Your task to perform on an android device: Show me popular videos on Youtube Image 0: 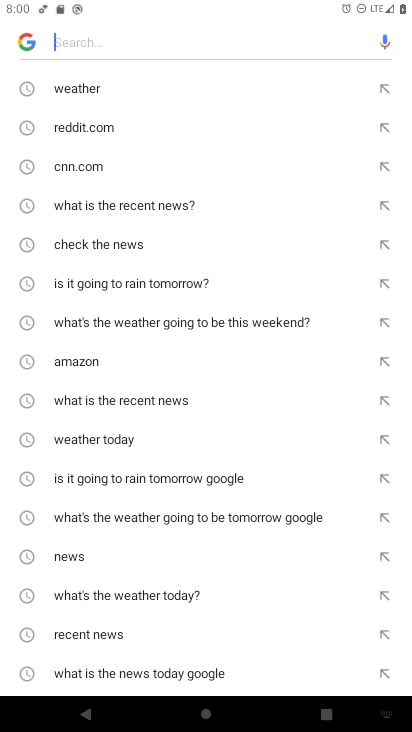
Step 0: press back button
Your task to perform on an android device: Show me popular videos on Youtube Image 1: 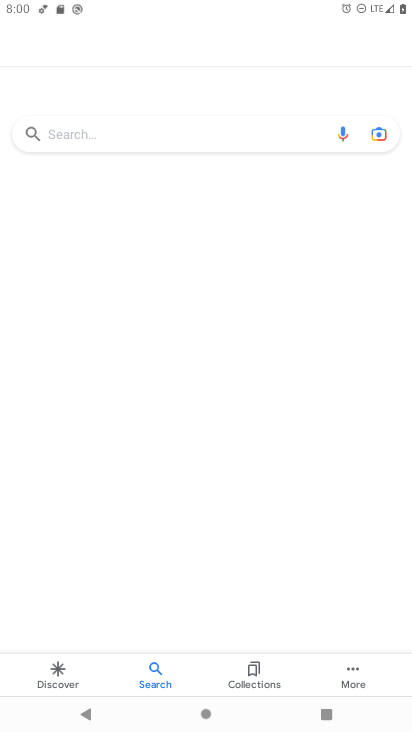
Step 1: press back button
Your task to perform on an android device: Show me popular videos on Youtube Image 2: 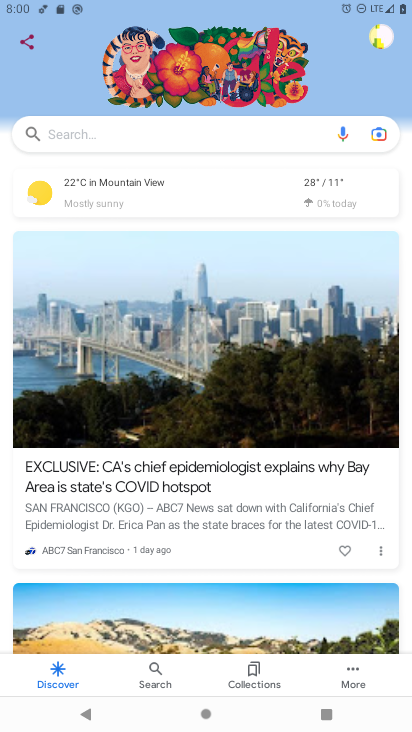
Step 2: press back button
Your task to perform on an android device: Show me popular videos on Youtube Image 3: 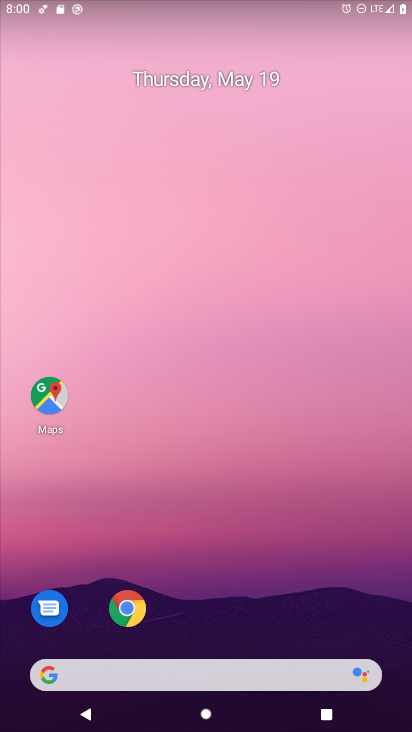
Step 3: click (401, 663)
Your task to perform on an android device: Show me popular videos on Youtube Image 4: 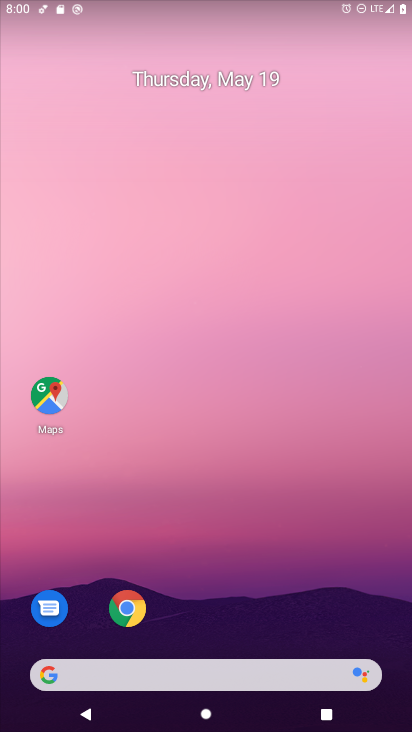
Step 4: drag from (394, 663) to (365, 135)
Your task to perform on an android device: Show me popular videos on Youtube Image 5: 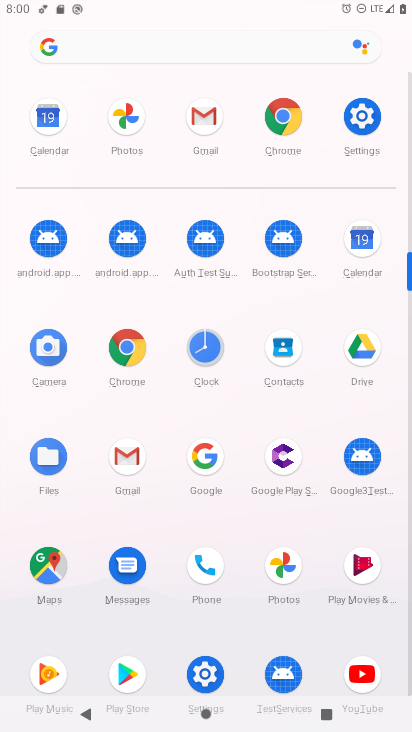
Step 5: click (355, 668)
Your task to perform on an android device: Show me popular videos on Youtube Image 6: 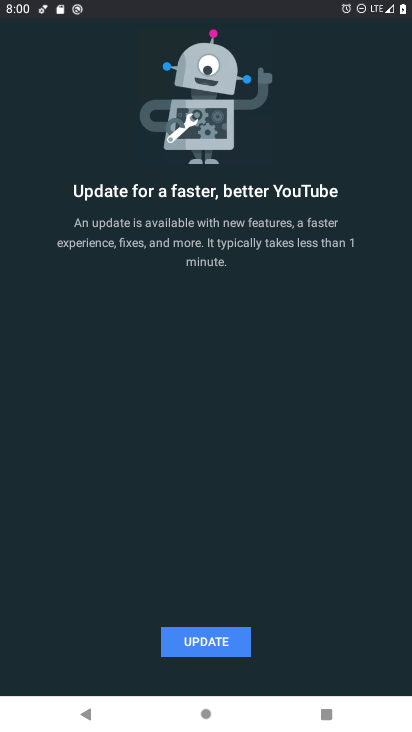
Step 6: click (233, 633)
Your task to perform on an android device: Show me popular videos on Youtube Image 7: 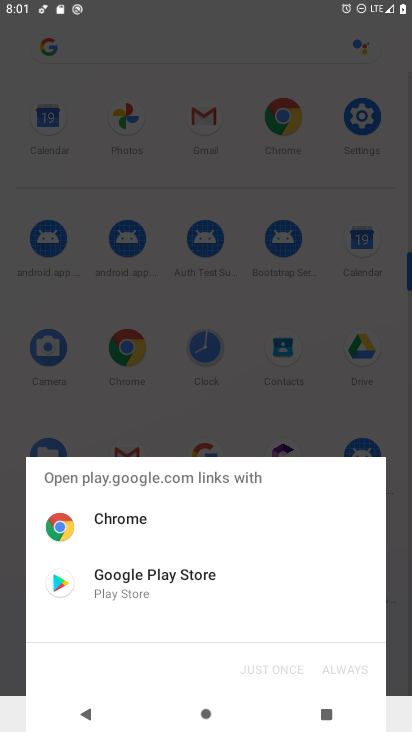
Step 7: click (136, 581)
Your task to perform on an android device: Show me popular videos on Youtube Image 8: 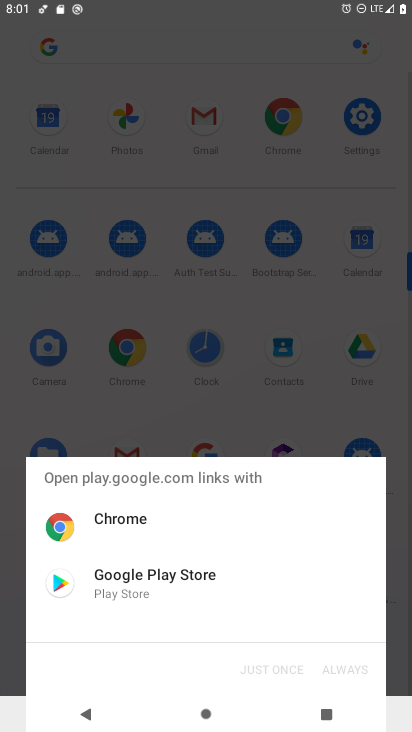
Step 8: click (123, 576)
Your task to perform on an android device: Show me popular videos on Youtube Image 9: 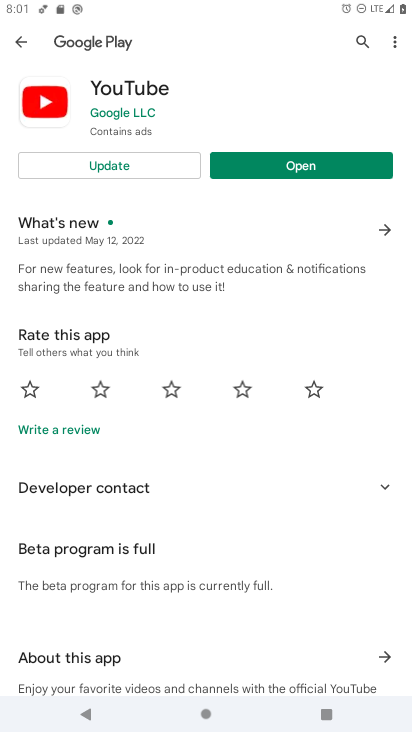
Step 9: click (151, 167)
Your task to perform on an android device: Show me popular videos on Youtube Image 10: 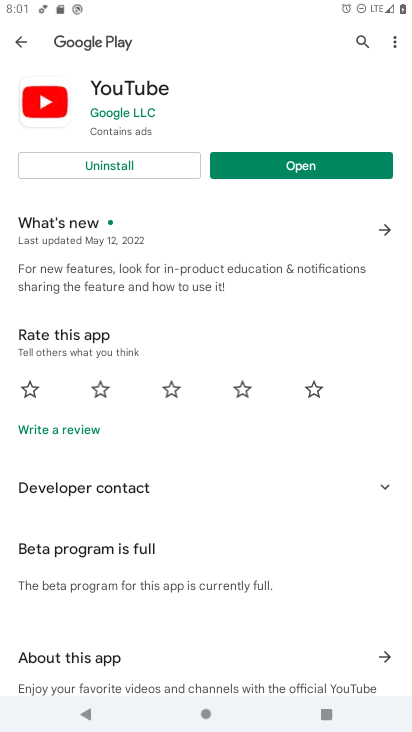
Step 10: click (295, 162)
Your task to perform on an android device: Show me popular videos on Youtube Image 11: 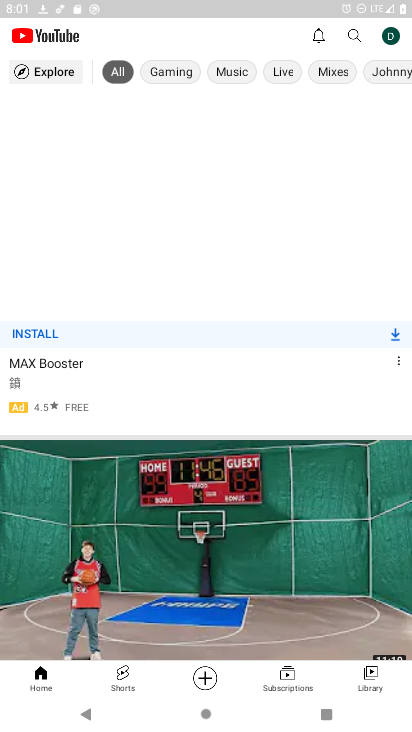
Step 11: click (372, 678)
Your task to perform on an android device: Show me popular videos on Youtube Image 12: 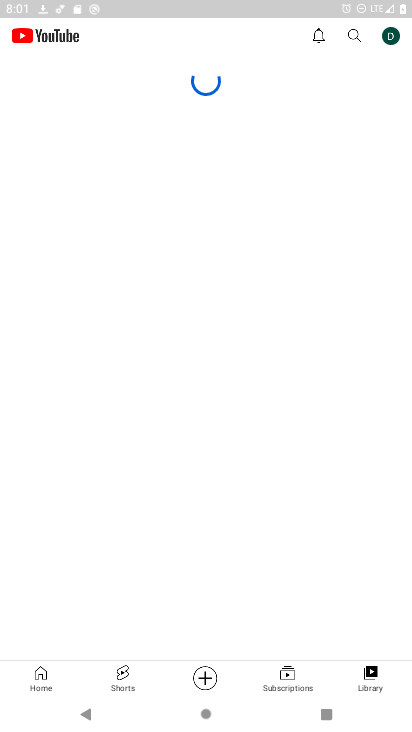
Step 12: click (372, 678)
Your task to perform on an android device: Show me popular videos on Youtube Image 13: 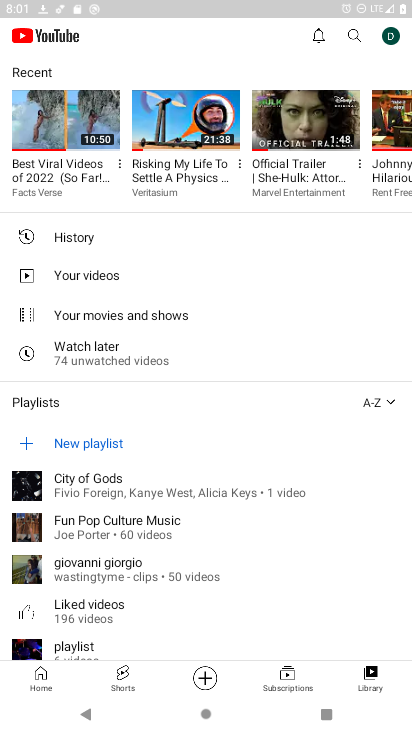
Step 13: click (49, 114)
Your task to perform on an android device: Show me popular videos on Youtube Image 14: 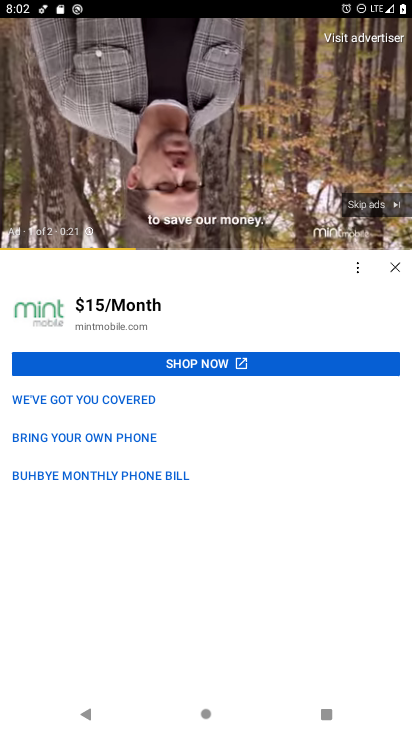
Step 14: task complete